Your task to perform on an android device: turn on sleep mode Image 0: 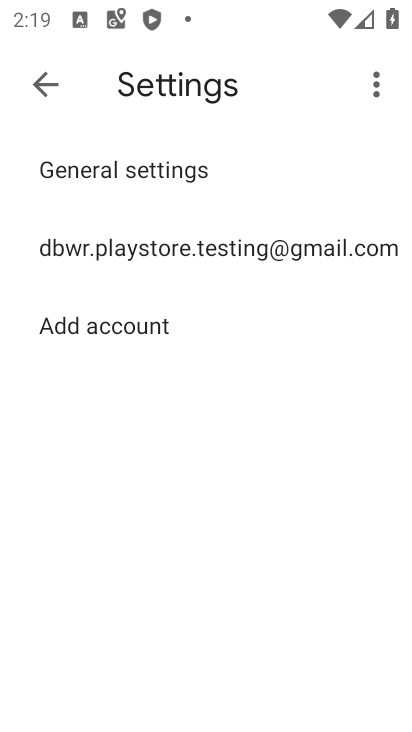
Step 0: press home button
Your task to perform on an android device: turn on sleep mode Image 1: 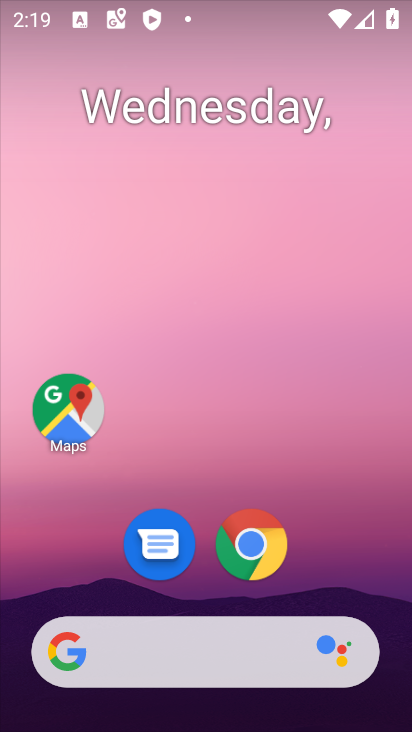
Step 1: drag from (366, 592) to (314, 101)
Your task to perform on an android device: turn on sleep mode Image 2: 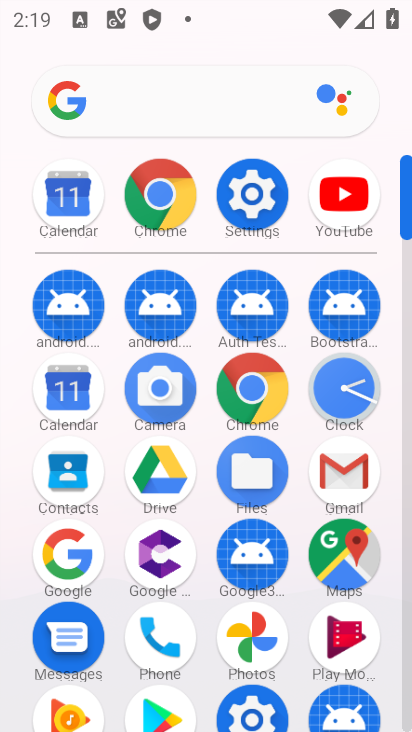
Step 2: click (406, 709)
Your task to perform on an android device: turn on sleep mode Image 3: 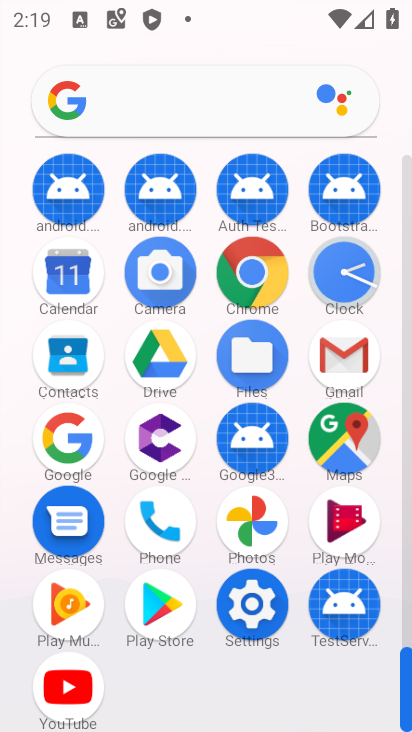
Step 3: click (255, 609)
Your task to perform on an android device: turn on sleep mode Image 4: 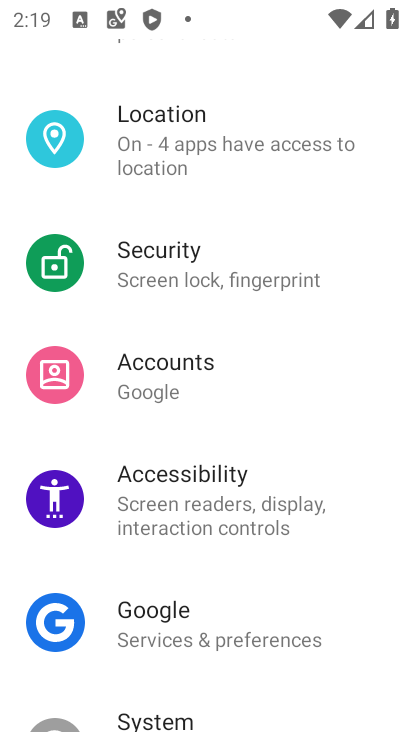
Step 4: drag from (338, 231) to (325, 477)
Your task to perform on an android device: turn on sleep mode Image 5: 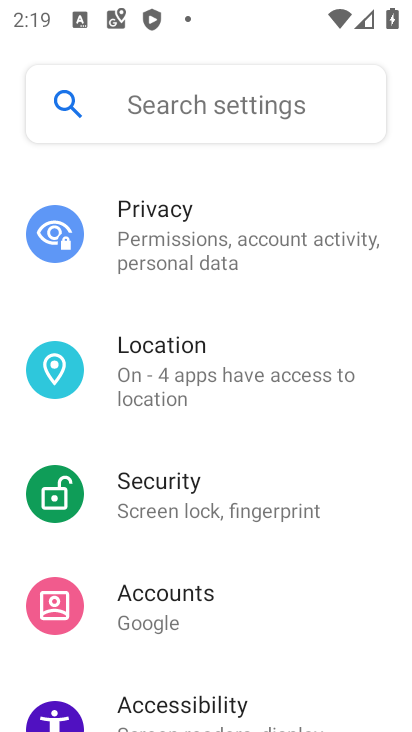
Step 5: drag from (369, 233) to (341, 444)
Your task to perform on an android device: turn on sleep mode Image 6: 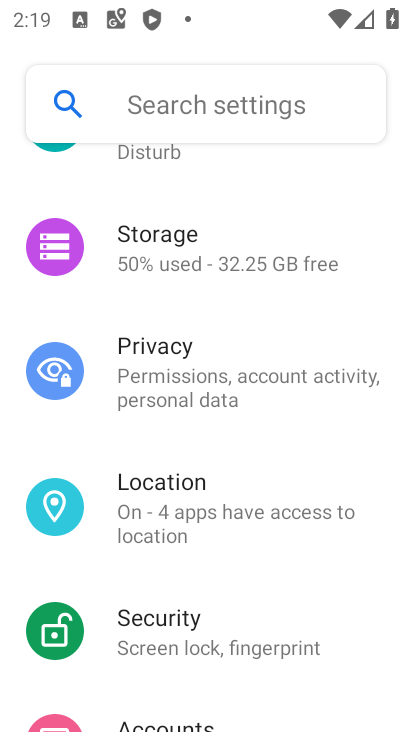
Step 6: drag from (371, 228) to (377, 545)
Your task to perform on an android device: turn on sleep mode Image 7: 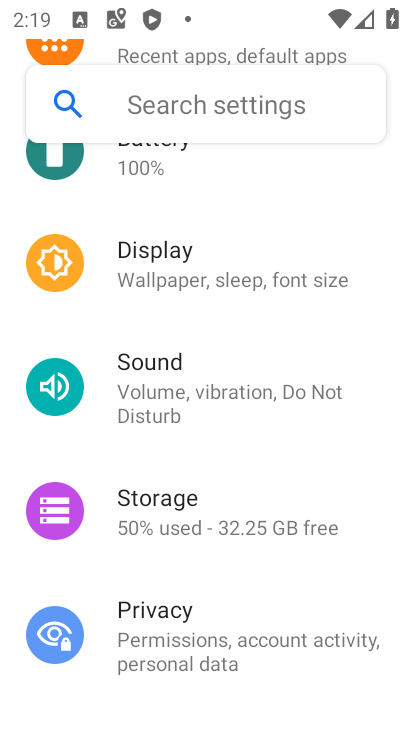
Step 7: click (140, 264)
Your task to perform on an android device: turn on sleep mode Image 8: 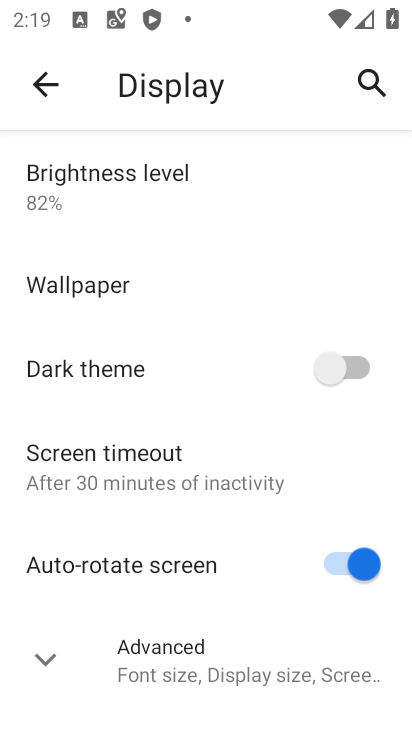
Step 8: click (47, 658)
Your task to perform on an android device: turn on sleep mode Image 9: 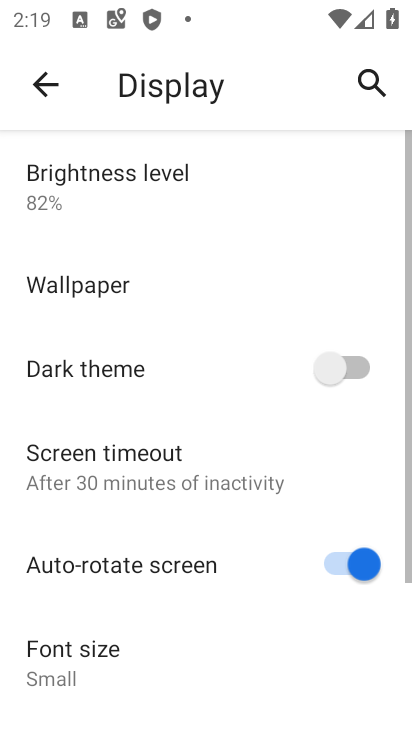
Step 9: task complete